Your task to perform on an android device: Go to eBay Image 0: 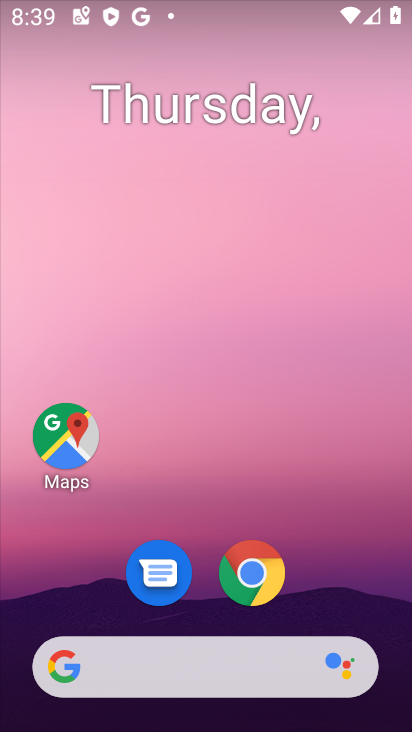
Step 0: drag from (358, 522) to (357, 204)
Your task to perform on an android device: Go to eBay Image 1: 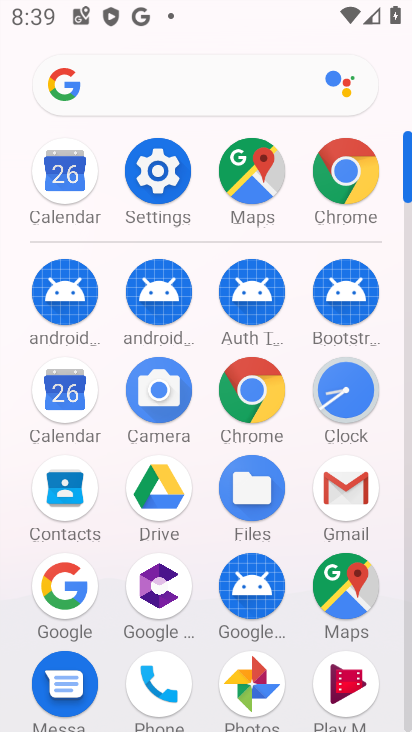
Step 1: click (334, 184)
Your task to perform on an android device: Go to eBay Image 2: 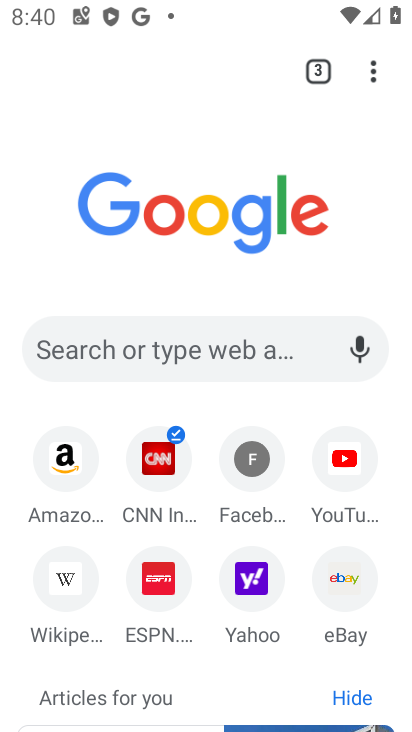
Step 2: click (185, 328)
Your task to perform on an android device: Go to eBay Image 3: 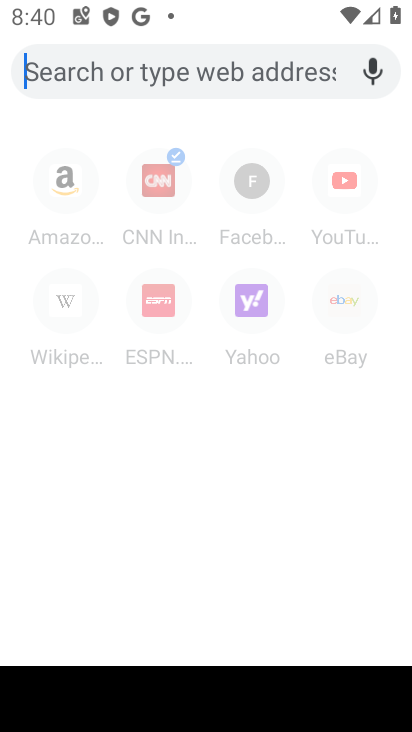
Step 3: type "ebay"
Your task to perform on an android device: Go to eBay Image 4: 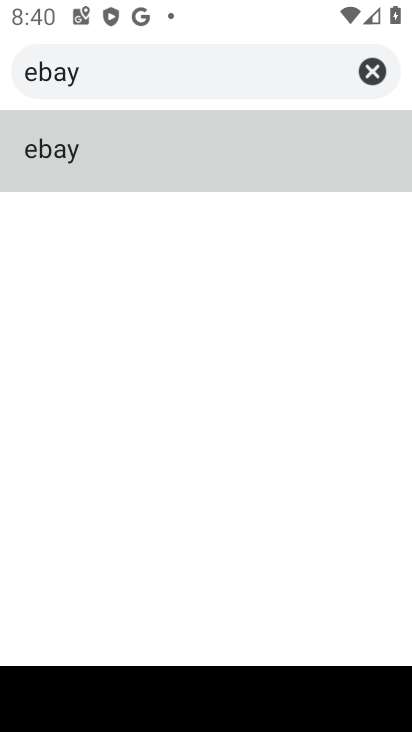
Step 4: click (121, 157)
Your task to perform on an android device: Go to eBay Image 5: 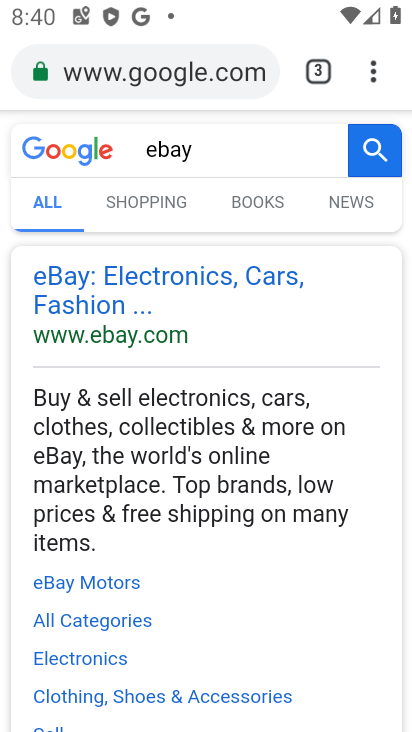
Step 5: click (52, 273)
Your task to perform on an android device: Go to eBay Image 6: 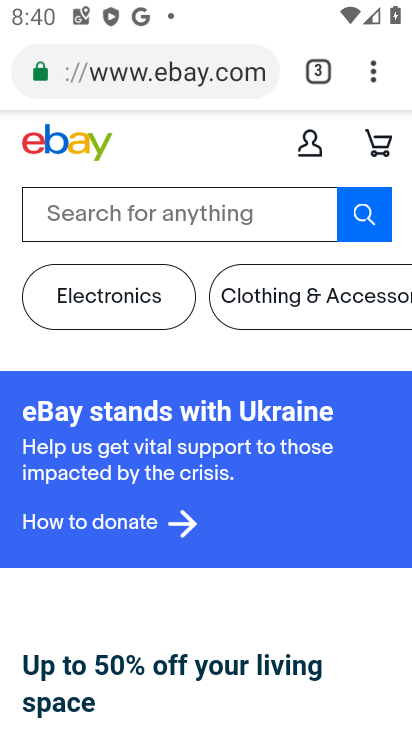
Step 6: task complete